Your task to perform on an android device: turn off javascript in the chrome app Image 0: 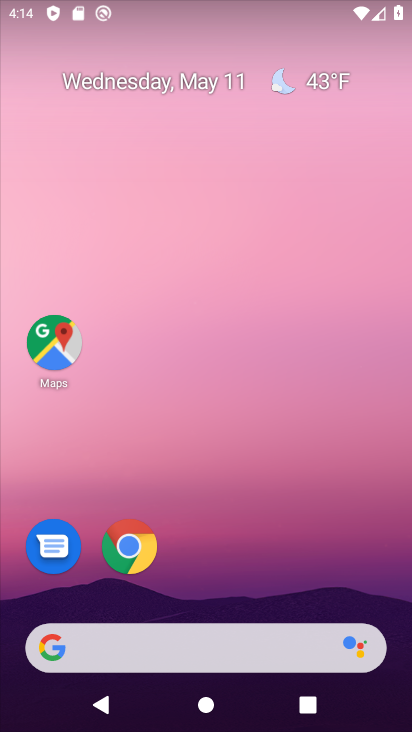
Step 0: click (129, 536)
Your task to perform on an android device: turn off javascript in the chrome app Image 1: 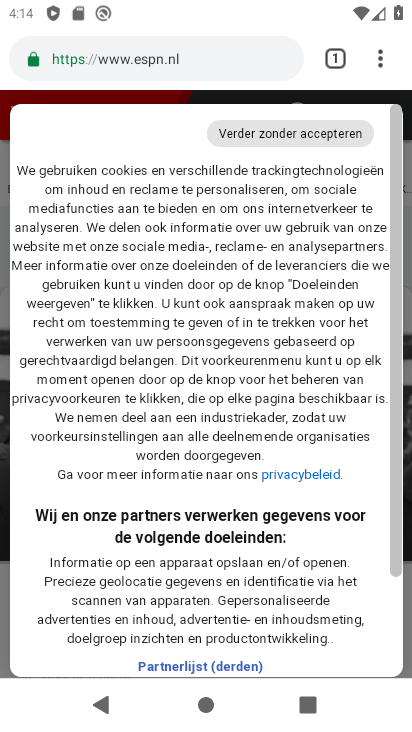
Step 1: click (384, 60)
Your task to perform on an android device: turn off javascript in the chrome app Image 2: 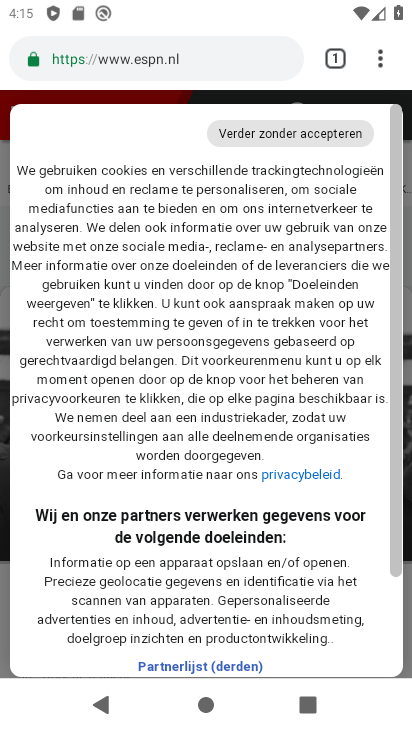
Step 2: click (384, 50)
Your task to perform on an android device: turn off javascript in the chrome app Image 3: 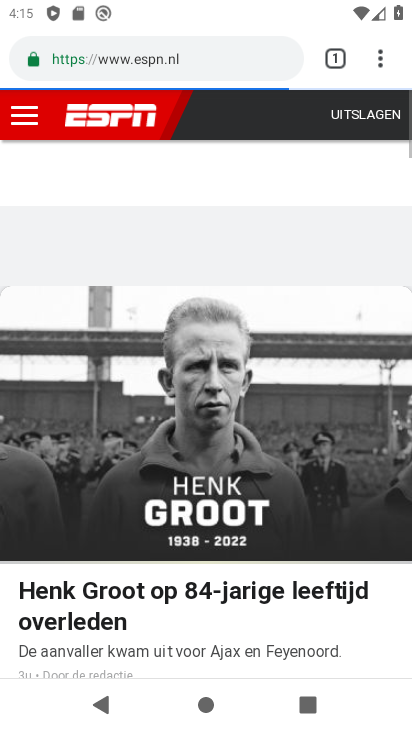
Step 3: click (380, 55)
Your task to perform on an android device: turn off javascript in the chrome app Image 4: 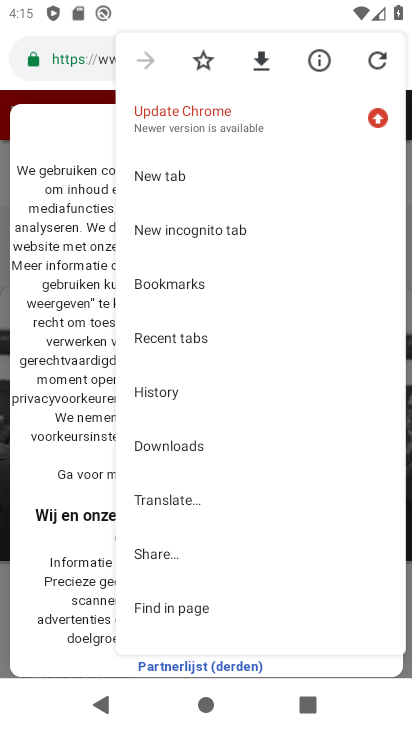
Step 4: drag from (189, 574) to (202, 262)
Your task to perform on an android device: turn off javascript in the chrome app Image 5: 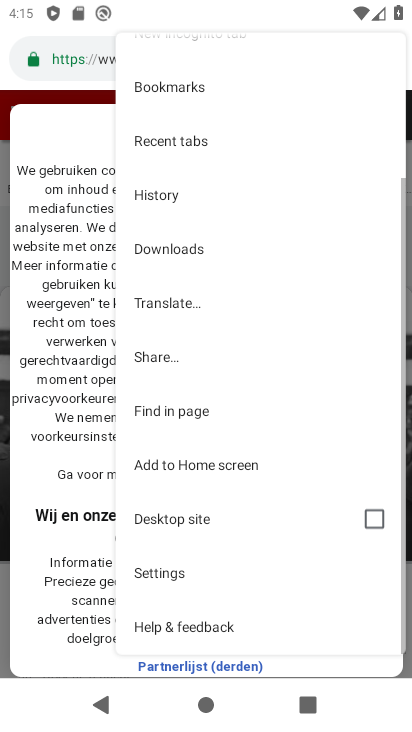
Step 5: click (166, 581)
Your task to perform on an android device: turn off javascript in the chrome app Image 6: 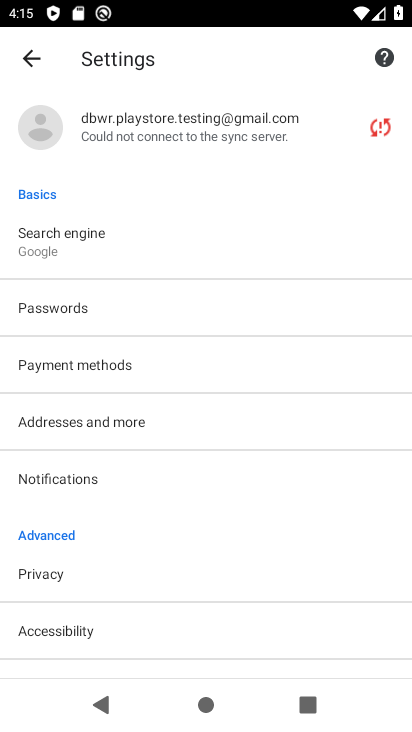
Step 6: drag from (101, 634) to (101, 335)
Your task to perform on an android device: turn off javascript in the chrome app Image 7: 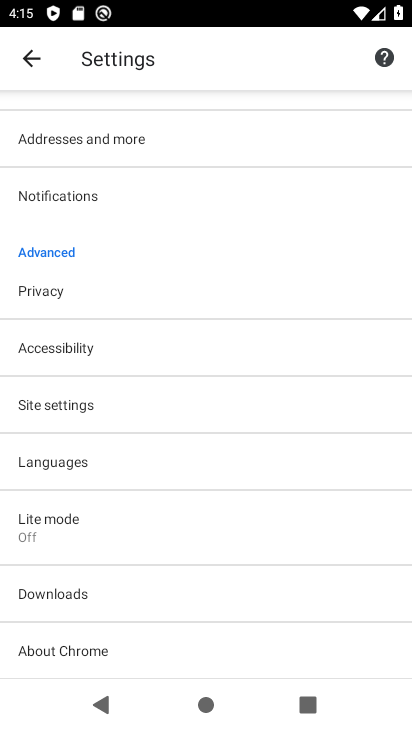
Step 7: click (65, 402)
Your task to perform on an android device: turn off javascript in the chrome app Image 8: 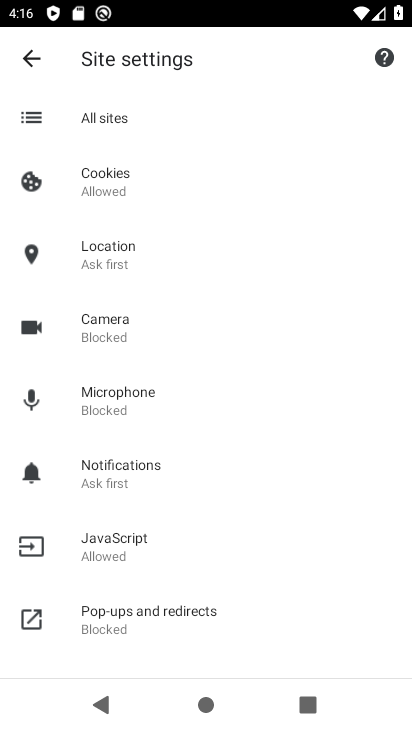
Step 8: click (119, 554)
Your task to perform on an android device: turn off javascript in the chrome app Image 9: 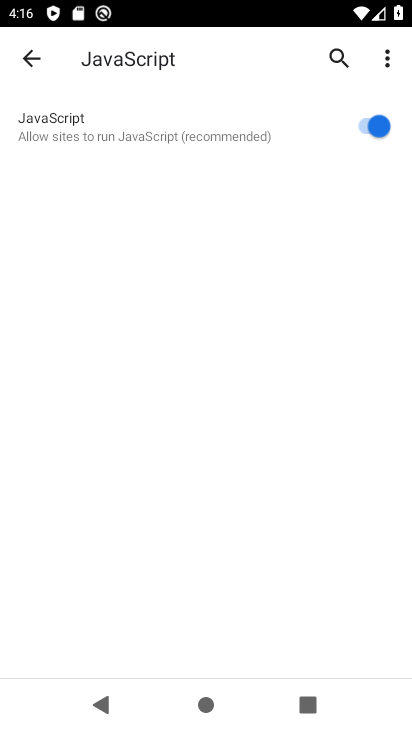
Step 9: click (372, 123)
Your task to perform on an android device: turn off javascript in the chrome app Image 10: 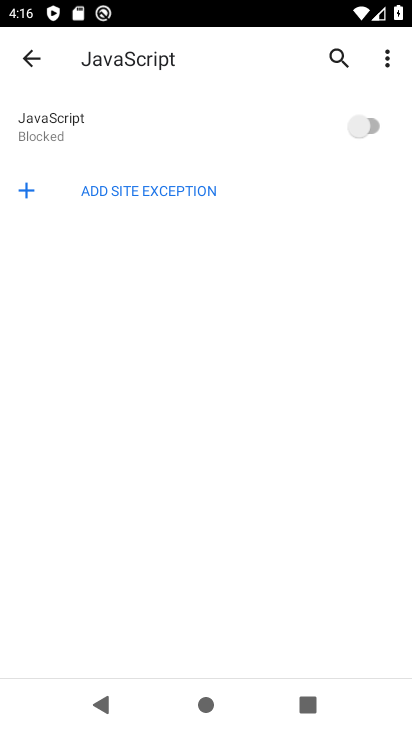
Step 10: task complete